Your task to perform on an android device: toggle javascript in the chrome app Image 0: 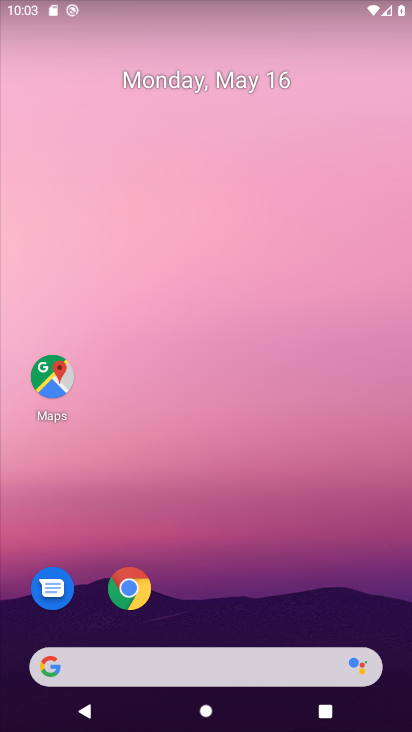
Step 0: click (126, 582)
Your task to perform on an android device: toggle javascript in the chrome app Image 1: 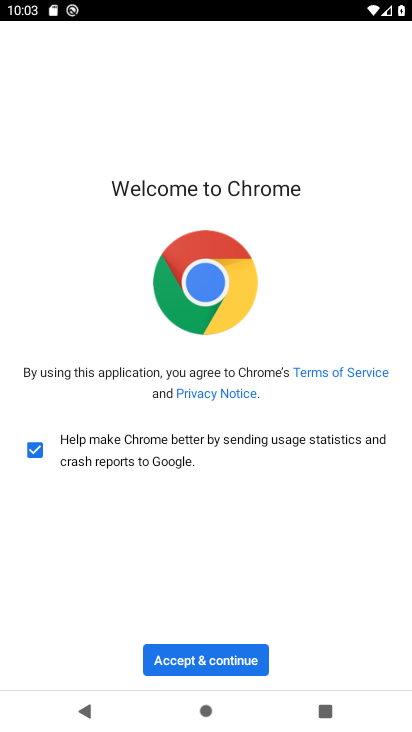
Step 1: click (200, 660)
Your task to perform on an android device: toggle javascript in the chrome app Image 2: 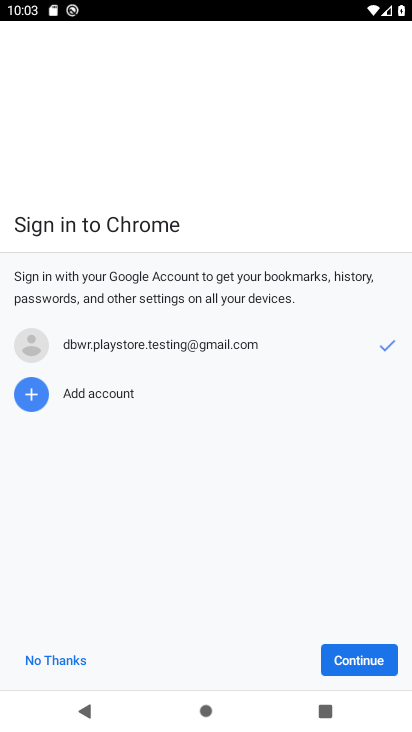
Step 2: click (359, 658)
Your task to perform on an android device: toggle javascript in the chrome app Image 3: 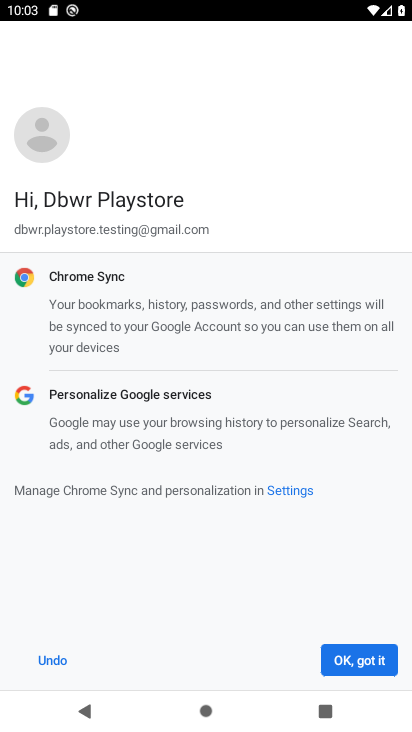
Step 3: click (359, 658)
Your task to perform on an android device: toggle javascript in the chrome app Image 4: 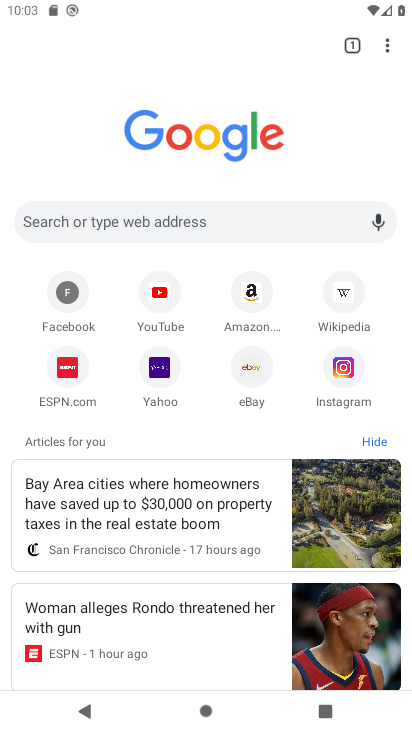
Step 4: click (385, 40)
Your task to perform on an android device: toggle javascript in the chrome app Image 5: 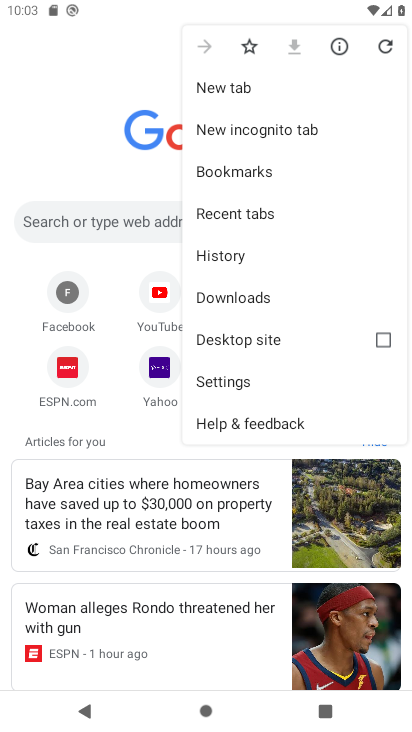
Step 5: click (257, 377)
Your task to perform on an android device: toggle javascript in the chrome app Image 6: 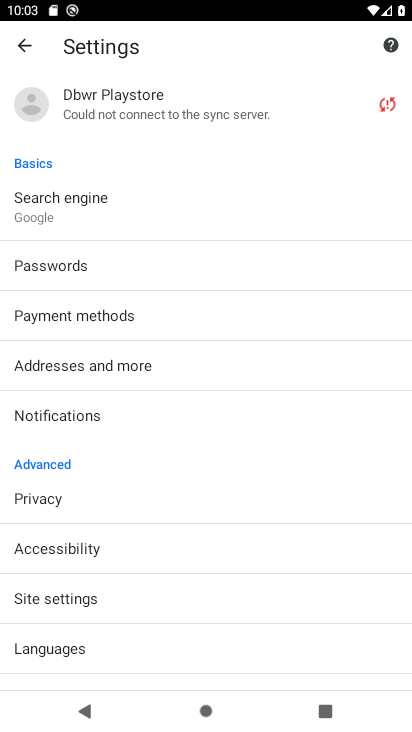
Step 6: click (110, 598)
Your task to perform on an android device: toggle javascript in the chrome app Image 7: 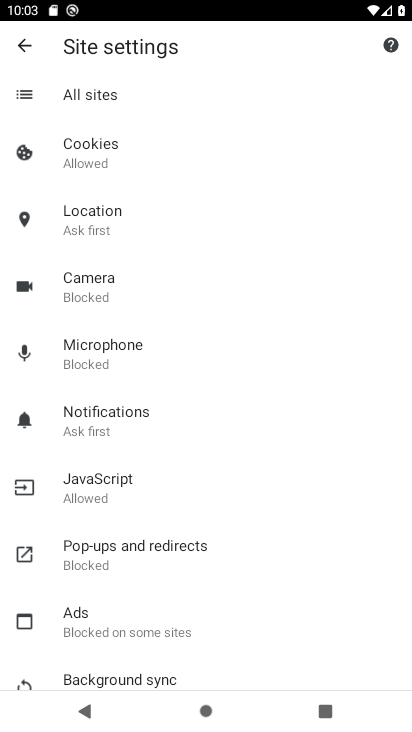
Step 7: click (150, 482)
Your task to perform on an android device: toggle javascript in the chrome app Image 8: 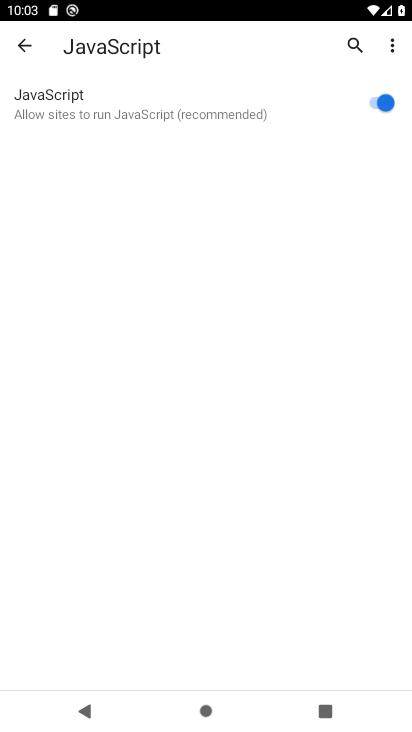
Step 8: click (374, 99)
Your task to perform on an android device: toggle javascript in the chrome app Image 9: 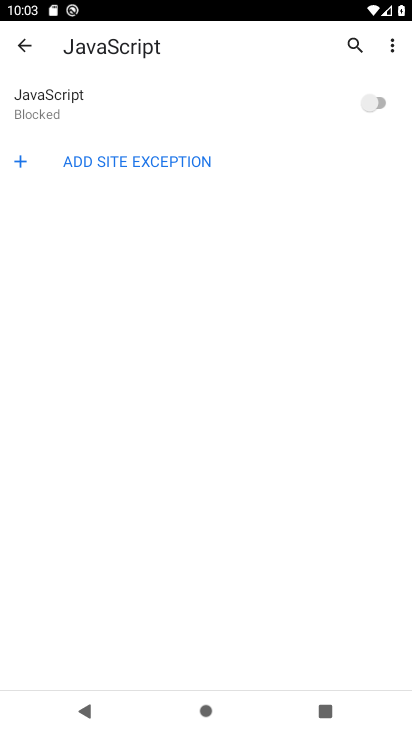
Step 9: task complete